Your task to perform on an android device: Go to ESPN.com Image 0: 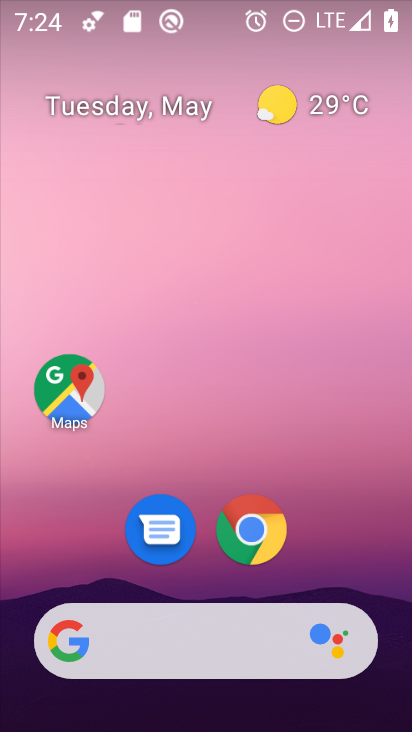
Step 0: drag from (392, 617) to (295, 15)
Your task to perform on an android device: Go to ESPN.com Image 1: 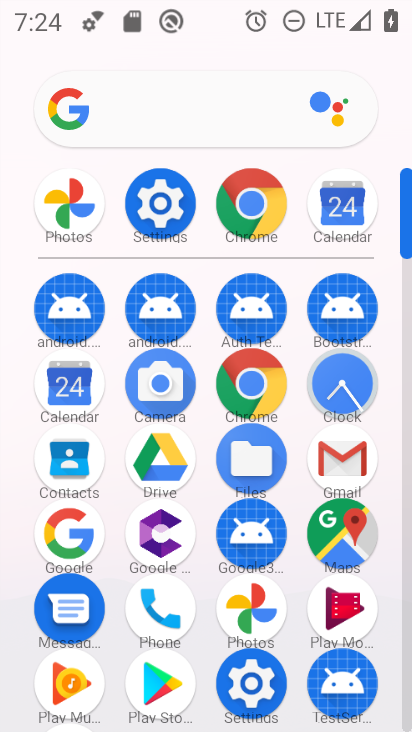
Step 1: click (78, 536)
Your task to perform on an android device: Go to ESPN.com Image 2: 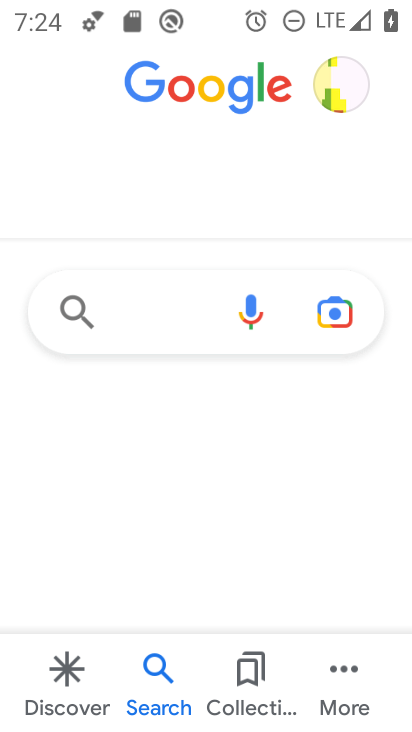
Step 2: click (184, 318)
Your task to perform on an android device: Go to ESPN.com Image 3: 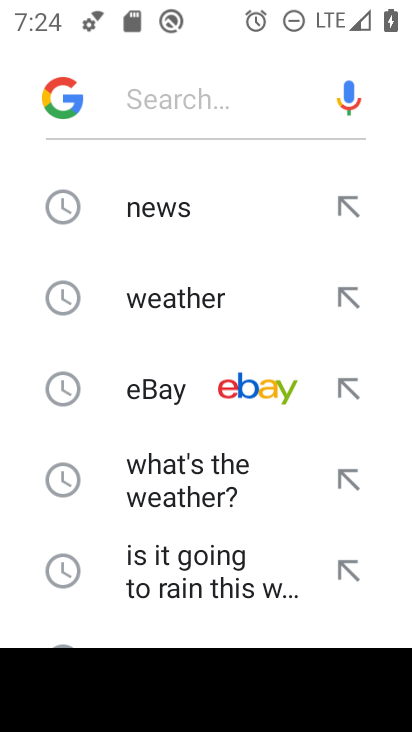
Step 3: drag from (146, 509) to (158, 160)
Your task to perform on an android device: Go to ESPN.com Image 4: 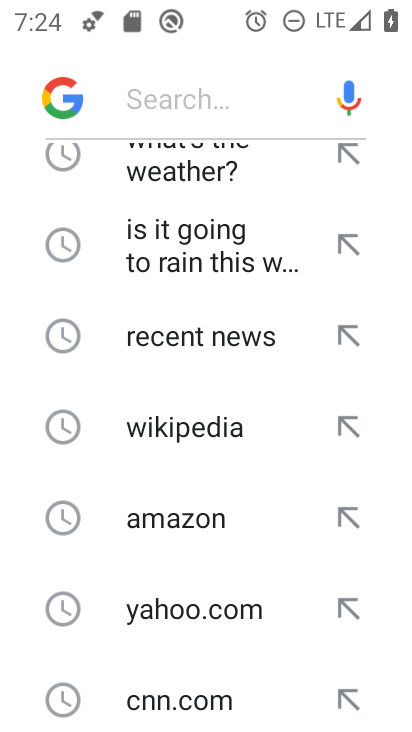
Step 4: drag from (177, 654) to (180, 226)
Your task to perform on an android device: Go to ESPN.com Image 5: 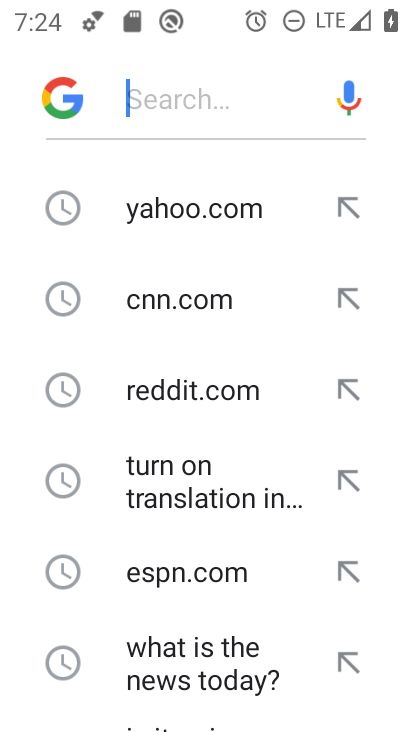
Step 5: click (175, 590)
Your task to perform on an android device: Go to ESPN.com Image 6: 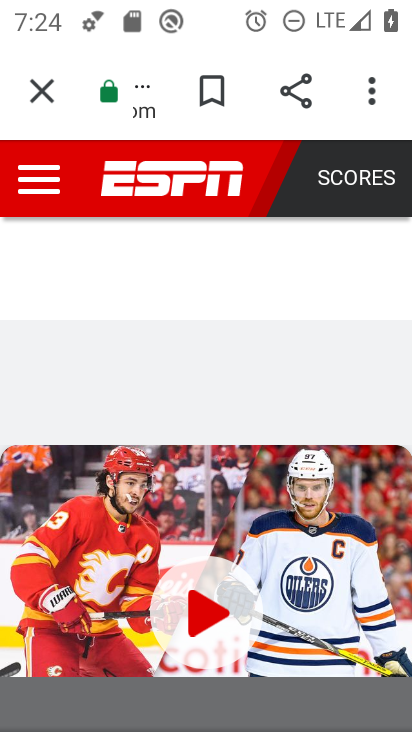
Step 6: task complete